Your task to perform on an android device: Find coffee shops on Maps Image 0: 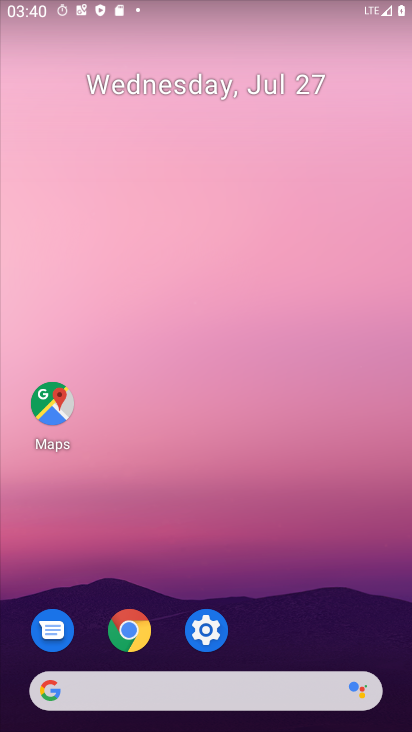
Step 0: drag from (355, 687) to (343, 146)
Your task to perform on an android device: Find coffee shops on Maps Image 1: 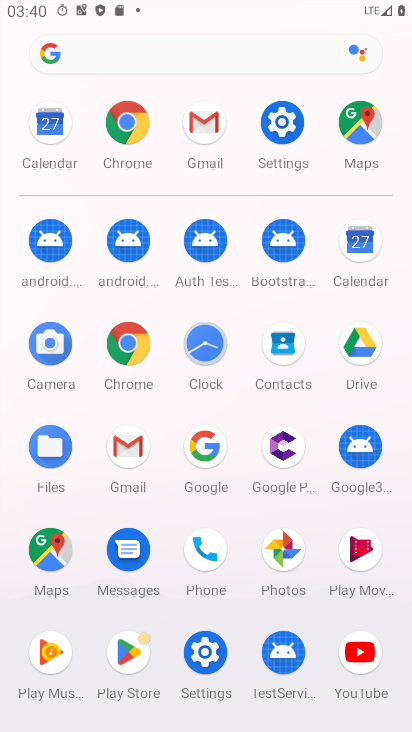
Step 1: click (37, 545)
Your task to perform on an android device: Find coffee shops on Maps Image 2: 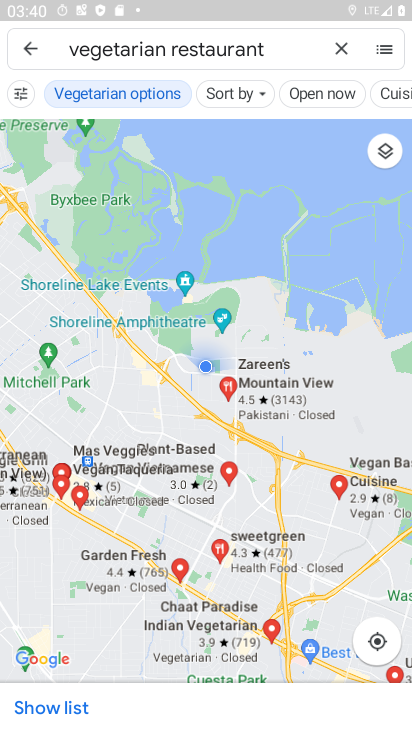
Step 2: click (346, 40)
Your task to perform on an android device: Find coffee shops on Maps Image 3: 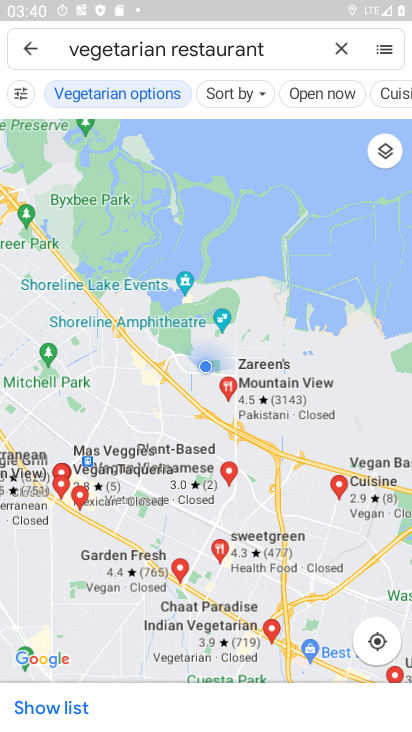
Step 3: click (340, 42)
Your task to perform on an android device: Find coffee shops on Maps Image 4: 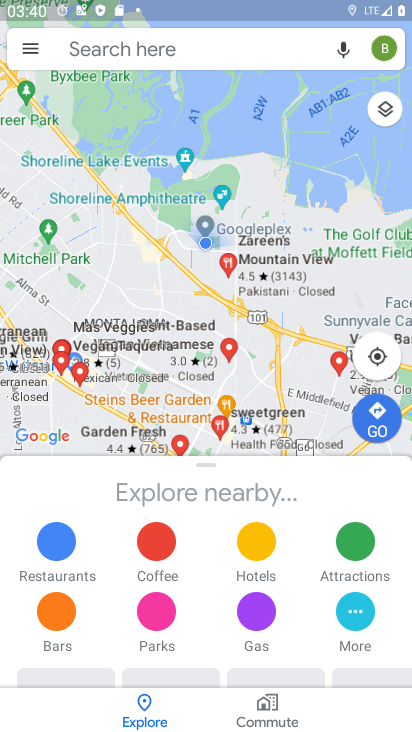
Step 4: click (98, 43)
Your task to perform on an android device: Find coffee shops on Maps Image 5: 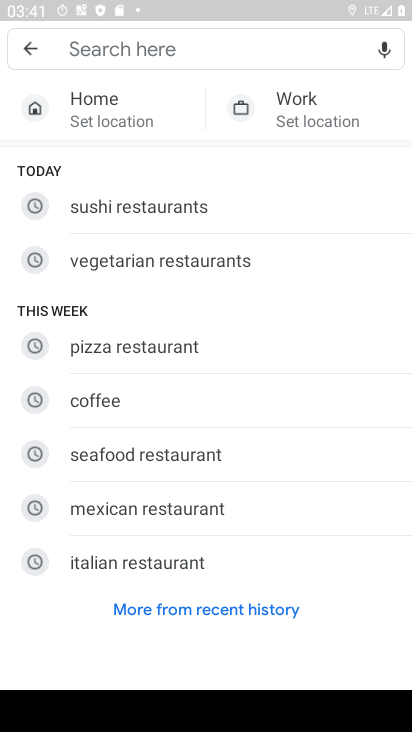
Step 5: click (145, 396)
Your task to perform on an android device: Find coffee shops on Maps Image 6: 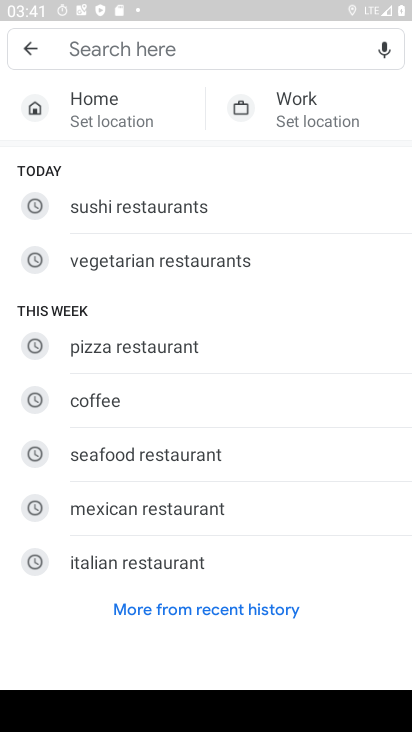
Step 6: click (143, 397)
Your task to perform on an android device: Find coffee shops on Maps Image 7: 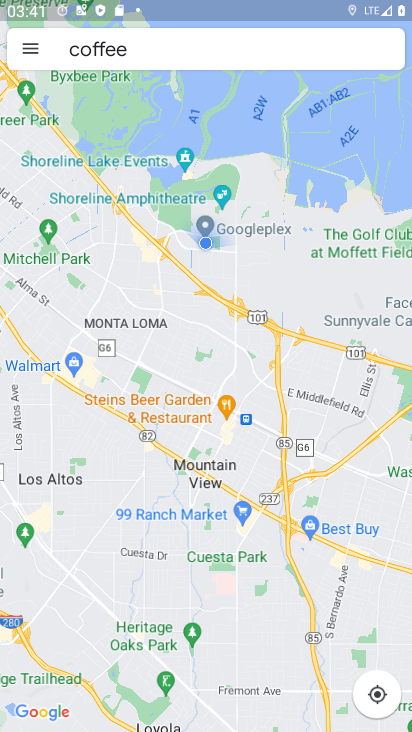
Step 7: task complete